Your task to perform on an android device: uninstall "Google Pay: Save, Pay, Manage" Image 0: 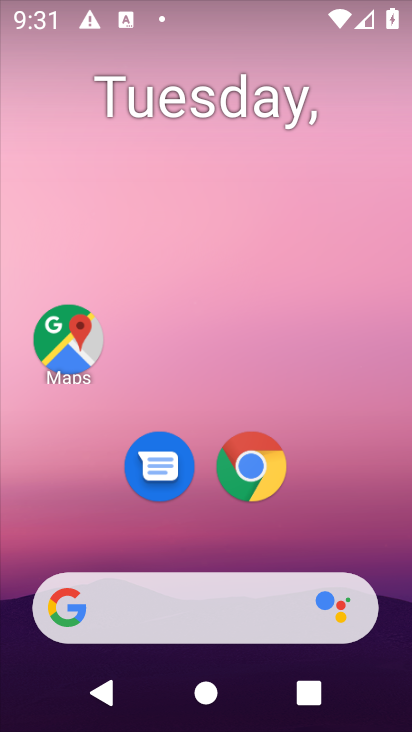
Step 0: drag from (96, 556) to (125, 95)
Your task to perform on an android device: uninstall "Google Pay: Save, Pay, Manage" Image 1: 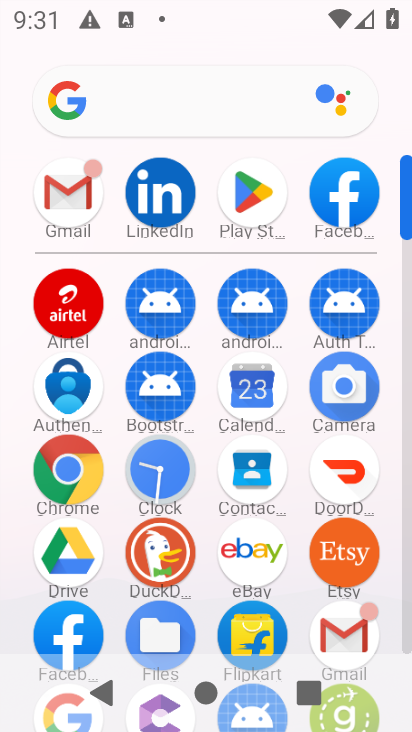
Step 1: click (237, 182)
Your task to perform on an android device: uninstall "Google Pay: Save, Pay, Manage" Image 2: 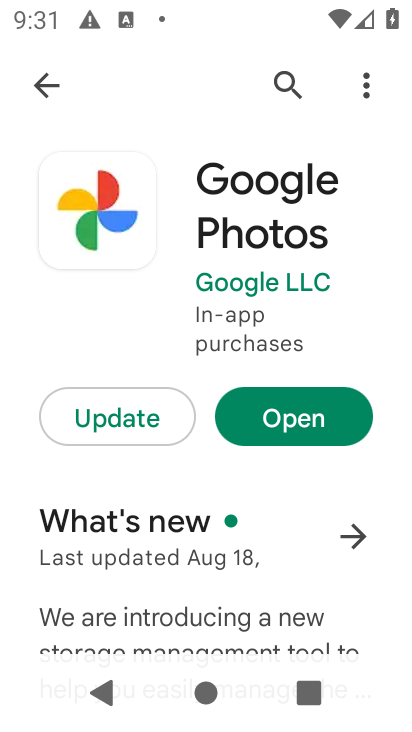
Step 2: click (283, 72)
Your task to perform on an android device: uninstall "Google Pay: Save, Pay, Manage" Image 3: 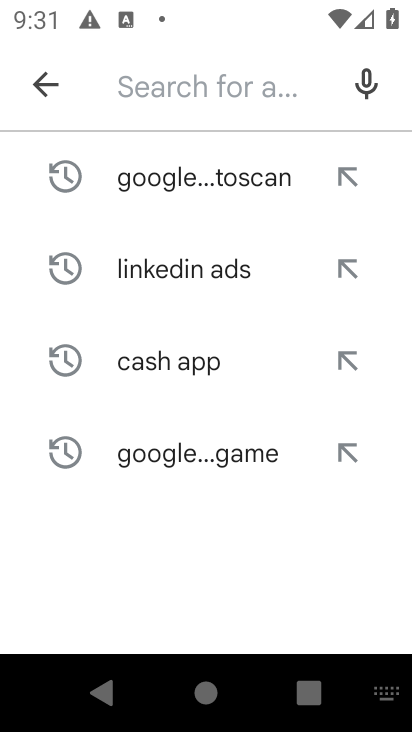
Step 3: click (190, 80)
Your task to perform on an android device: uninstall "Google Pay: Save, Pay, Manage" Image 4: 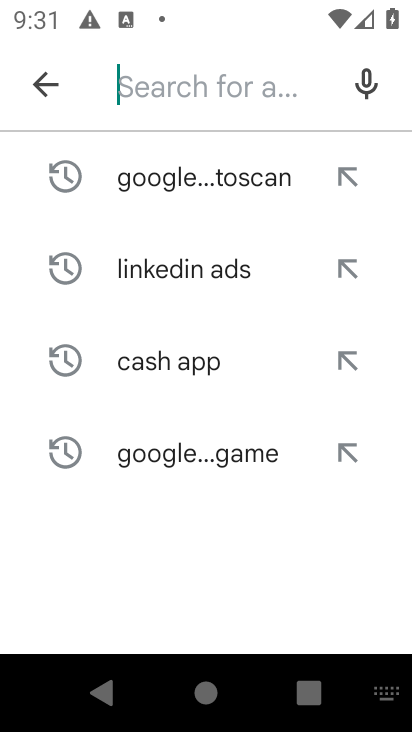
Step 4: type "Google Pay: Save, Pay, Manage"
Your task to perform on an android device: uninstall "Google Pay: Save, Pay, Manage" Image 5: 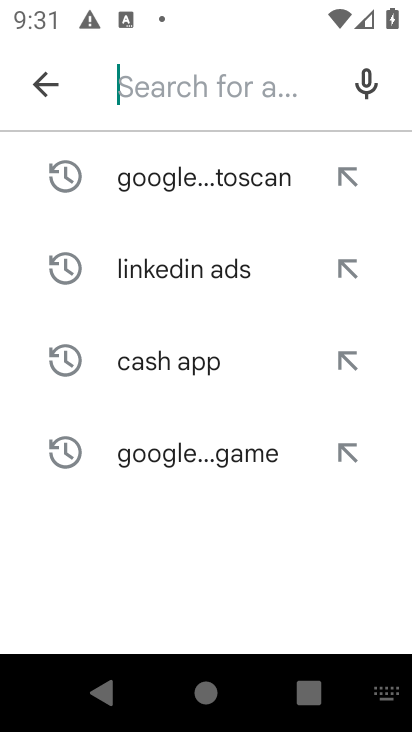
Step 5: click (104, 587)
Your task to perform on an android device: uninstall "Google Pay: Save, Pay, Manage" Image 6: 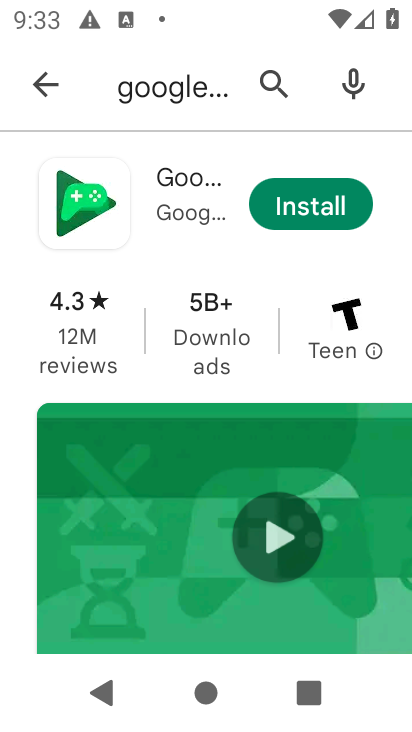
Step 6: click (268, 81)
Your task to perform on an android device: uninstall "Google Pay: Save, Pay, Manage" Image 7: 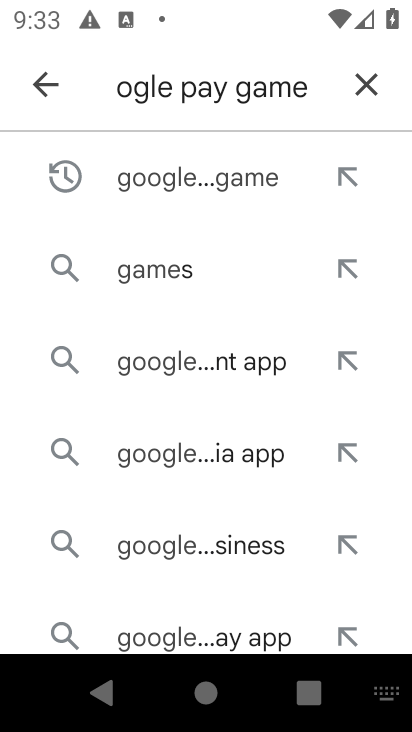
Step 7: click (361, 71)
Your task to perform on an android device: uninstall "Google Pay: Save, Pay, Manage" Image 8: 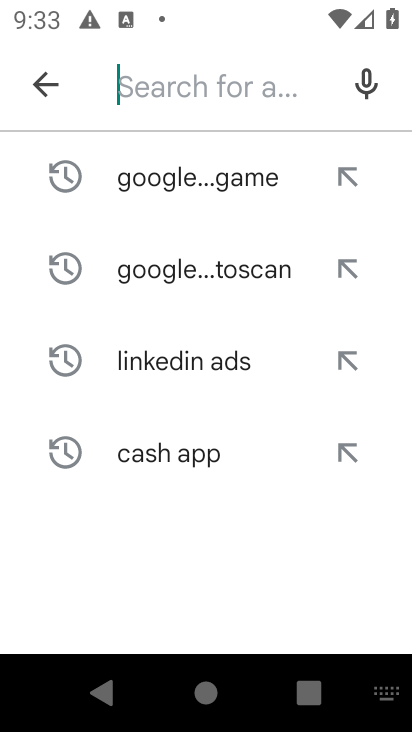
Step 8: type "Google Pay: Save, Pay, Manage"
Your task to perform on an android device: uninstall "Google Pay: Save, Pay, Manage" Image 9: 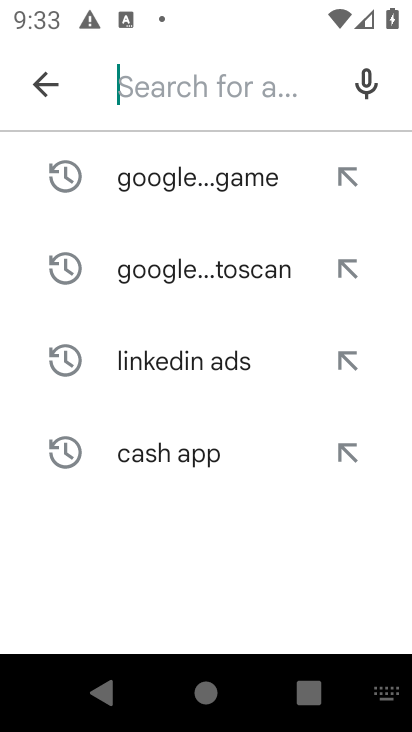
Step 9: click (266, 532)
Your task to perform on an android device: uninstall "Google Pay: Save, Pay, Manage" Image 10: 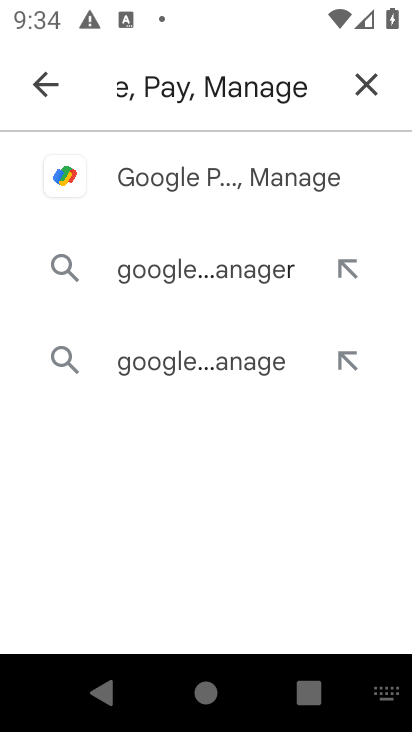
Step 10: click (169, 163)
Your task to perform on an android device: uninstall "Google Pay: Save, Pay, Manage" Image 11: 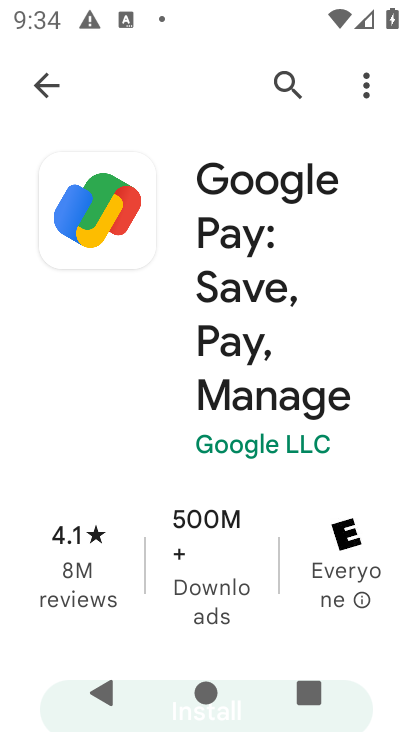
Step 11: task complete